Your task to perform on an android device: Open network settings Image 0: 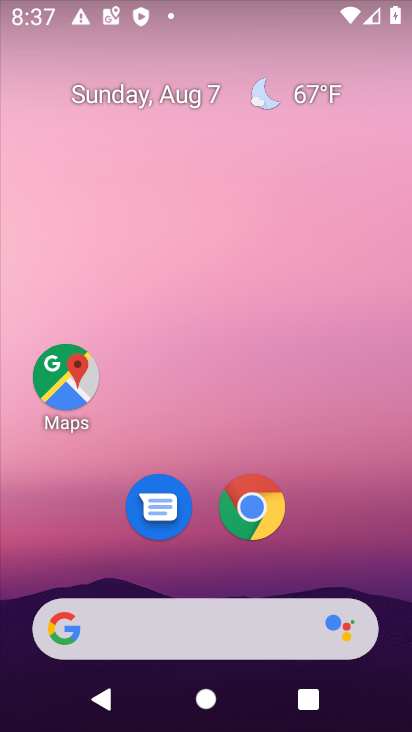
Step 0: drag from (177, 630) to (324, 61)
Your task to perform on an android device: Open network settings Image 1: 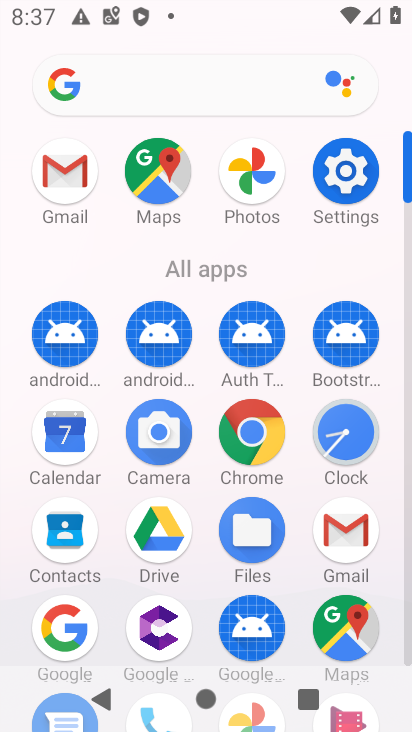
Step 1: click (343, 178)
Your task to perform on an android device: Open network settings Image 2: 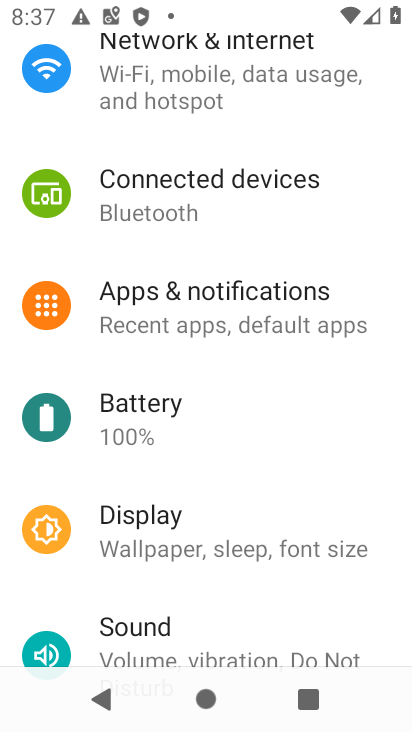
Step 2: drag from (338, 123) to (327, 613)
Your task to perform on an android device: Open network settings Image 3: 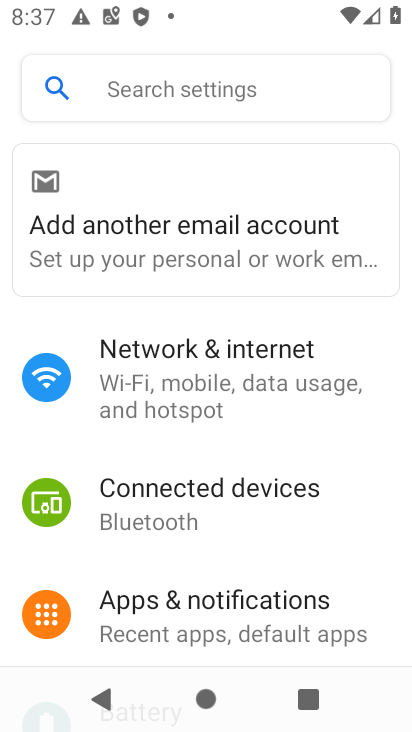
Step 3: click (231, 368)
Your task to perform on an android device: Open network settings Image 4: 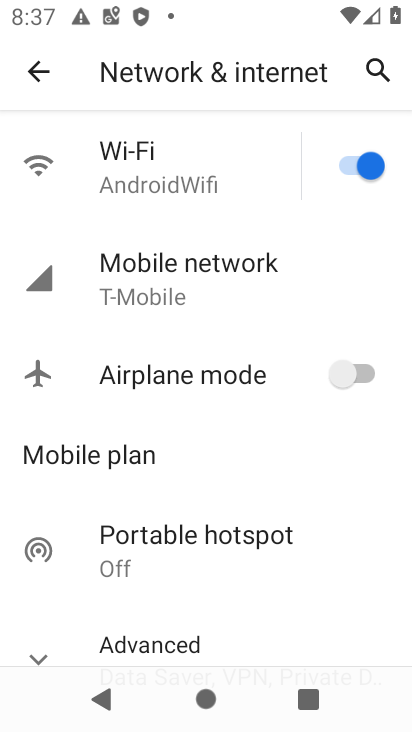
Step 4: click (165, 273)
Your task to perform on an android device: Open network settings Image 5: 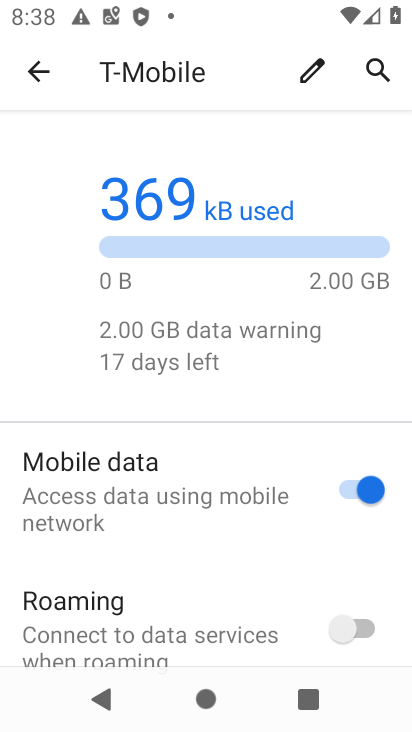
Step 5: task complete